Your task to perform on an android device: When is my next appointment? Image 0: 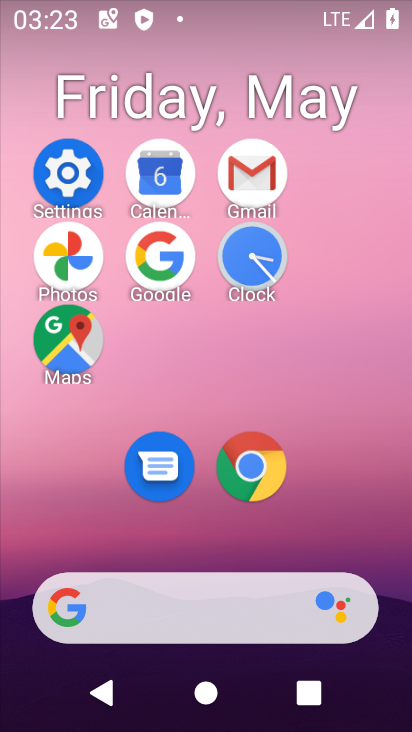
Step 0: click (174, 158)
Your task to perform on an android device: When is my next appointment? Image 1: 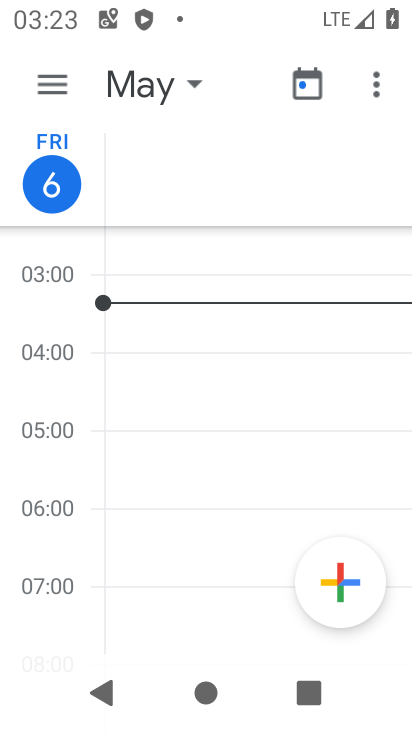
Step 1: task complete